Your task to perform on an android device: Go to sound settings Image 0: 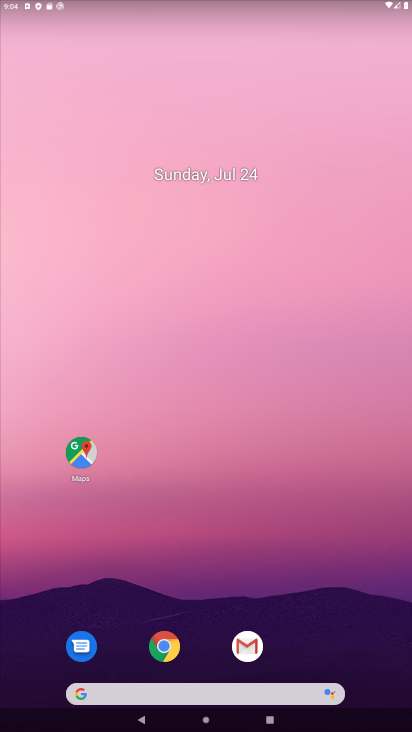
Step 0: drag from (287, 660) to (304, 114)
Your task to perform on an android device: Go to sound settings Image 1: 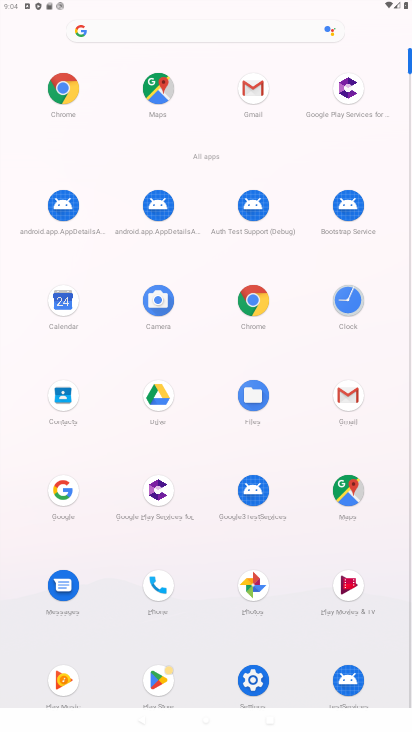
Step 1: drag from (250, 680) to (322, 649)
Your task to perform on an android device: Go to sound settings Image 2: 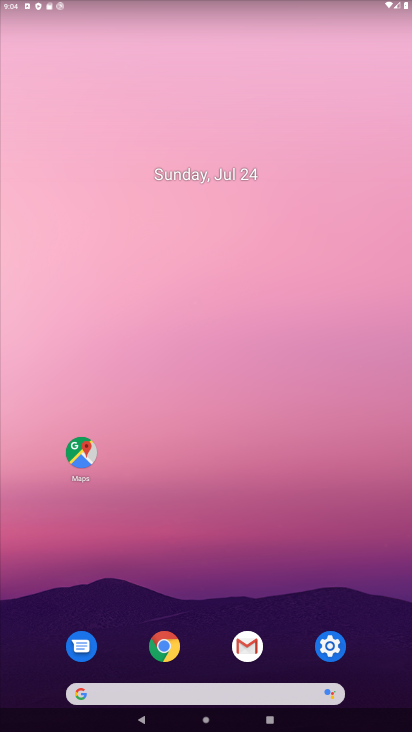
Step 2: click (337, 648)
Your task to perform on an android device: Go to sound settings Image 3: 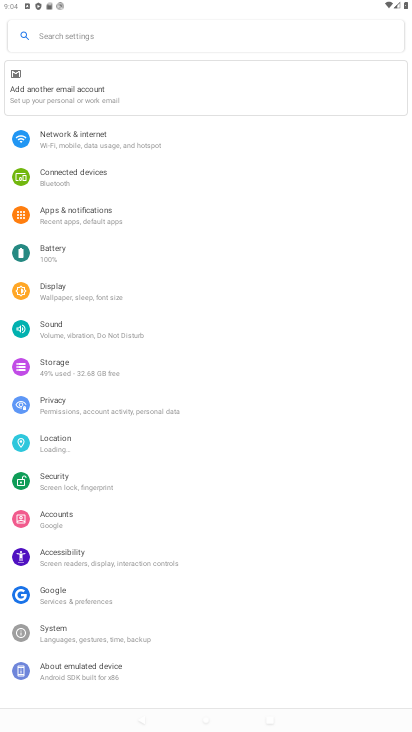
Step 3: click (76, 334)
Your task to perform on an android device: Go to sound settings Image 4: 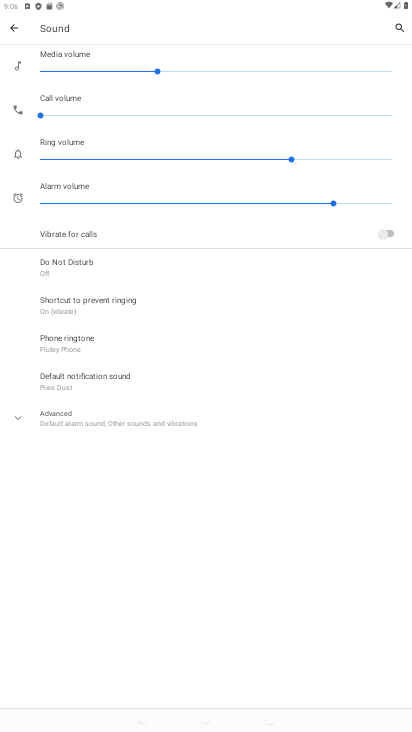
Step 4: task complete